Your task to perform on an android device: toggle sleep mode Image 0: 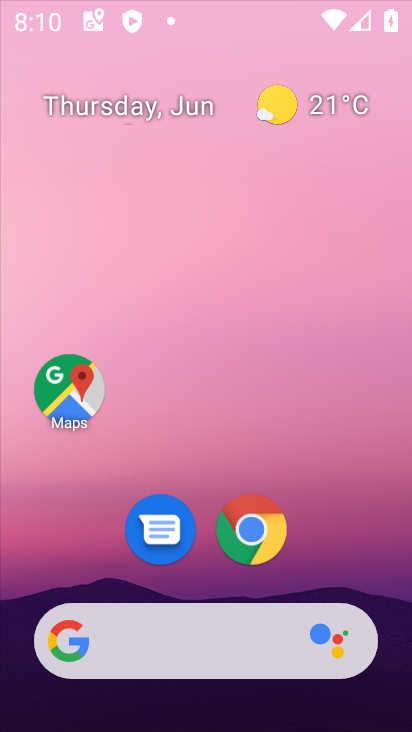
Step 0: drag from (352, 536) to (260, 66)
Your task to perform on an android device: toggle sleep mode Image 1: 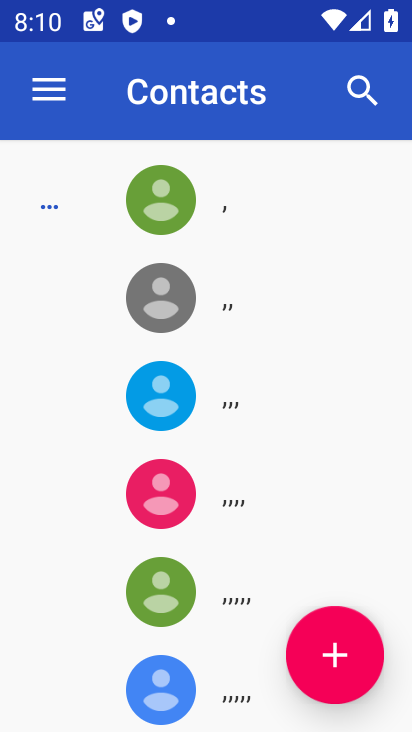
Step 1: press home button
Your task to perform on an android device: toggle sleep mode Image 2: 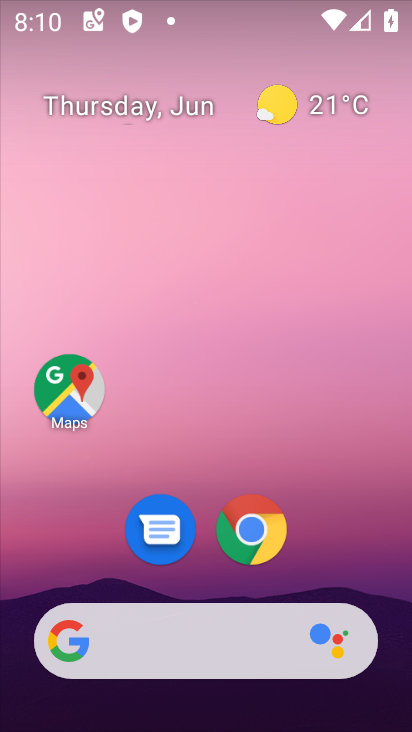
Step 2: drag from (322, 555) to (208, 36)
Your task to perform on an android device: toggle sleep mode Image 3: 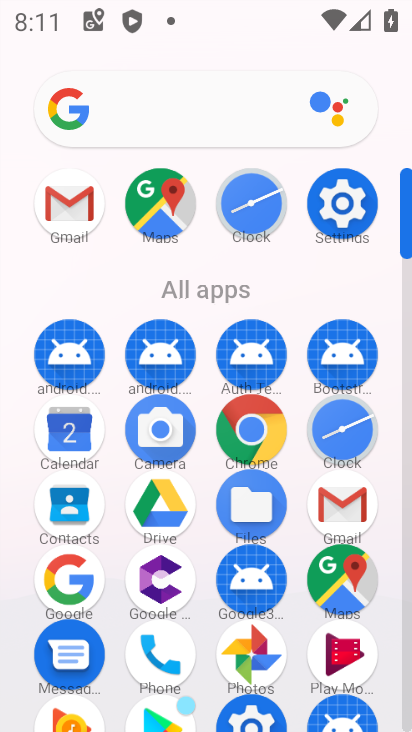
Step 3: click (344, 202)
Your task to perform on an android device: toggle sleep mode Image 4: 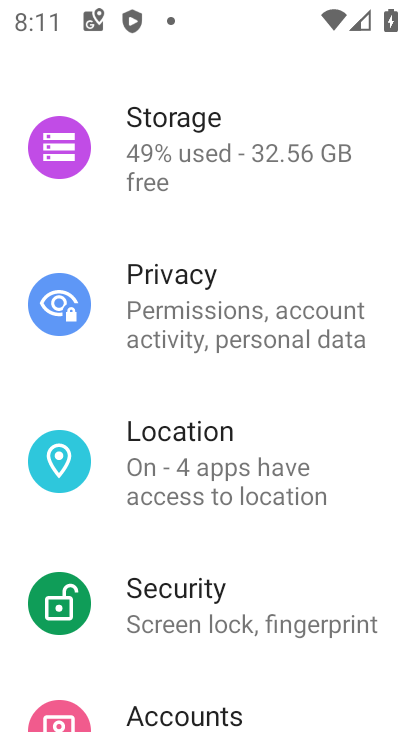
Step 4: drag from (197, 214) to (194, 462)
Your task to perform on an android device: toggle sleep mode Image 5: 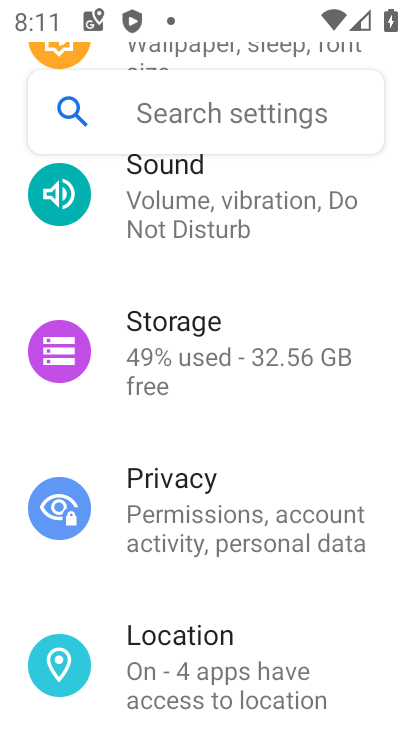
Step 5: drag from (242, 256) to (221, 666)
Your task to perform on an android device: toggle sleep mode Image 6: 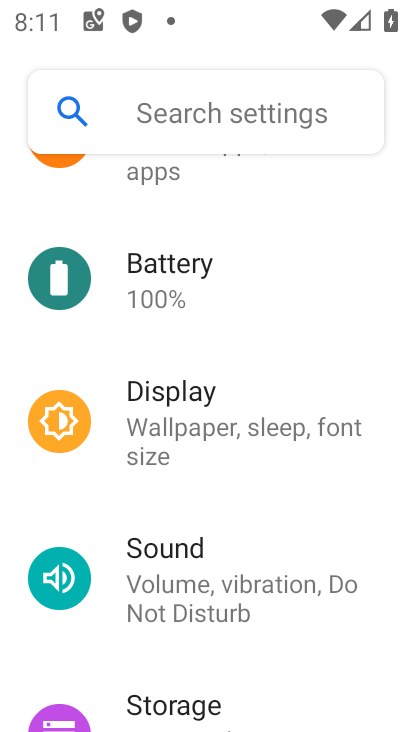
Step 6: click (180, 431)
Your task to perform on an android device: toggle sleep mode Image 7: 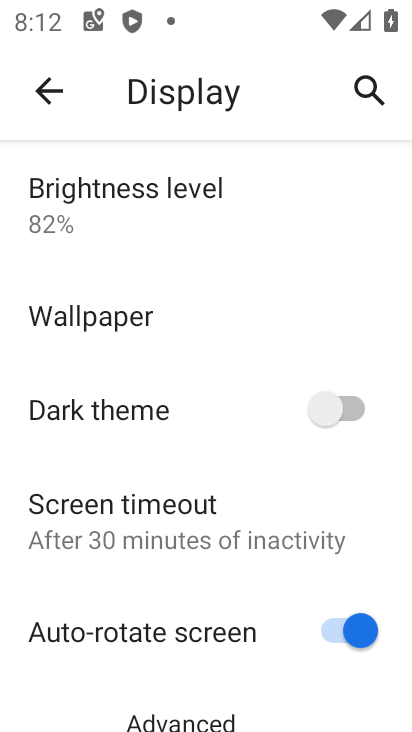
Step 7: task complete